Your task to perform on an android device: Is it going to rain today? Image 0: 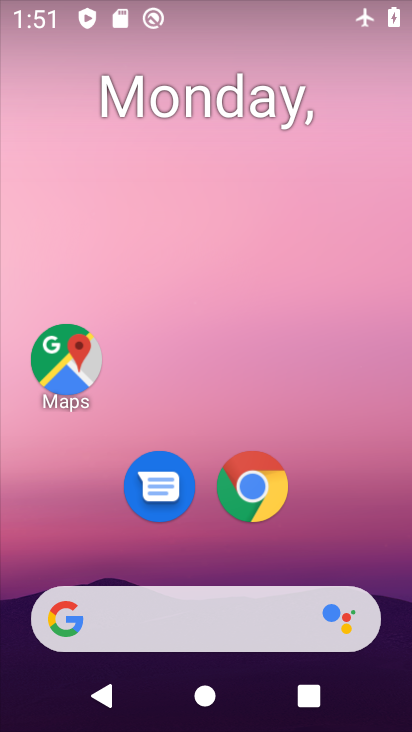
Step 0: drag from (44, 120) to (387, 562)
Your task to perform on an android device: Is it going to rain today? Image 1: 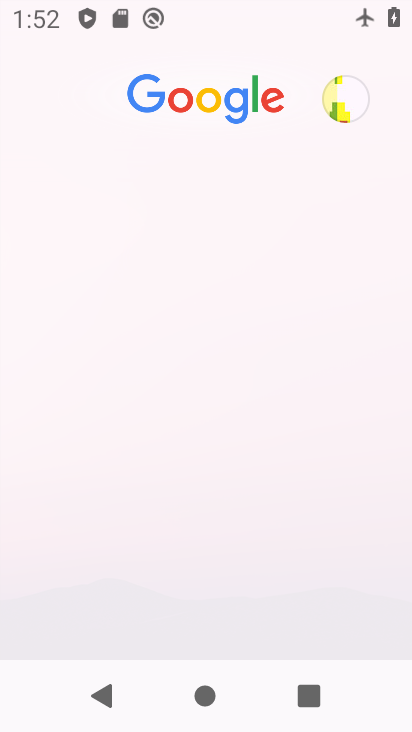
Step 1: task complete